Your task to perform on an android device: set default search engine in the chrome app Image 0: 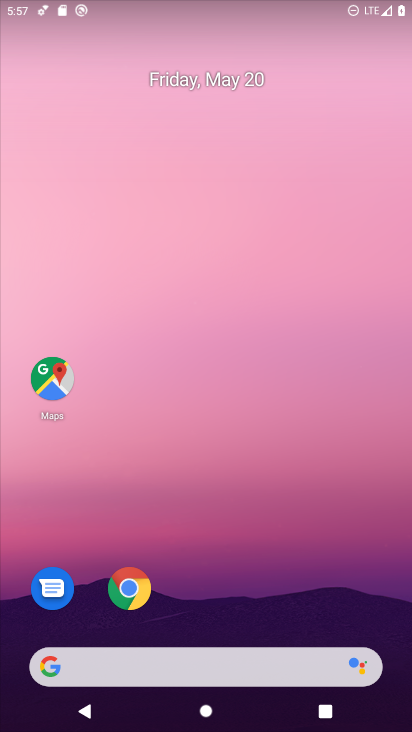
Step 0: click (126, 587)
Your task to perform on an android device: set default search engine in the chrome app Image 1: 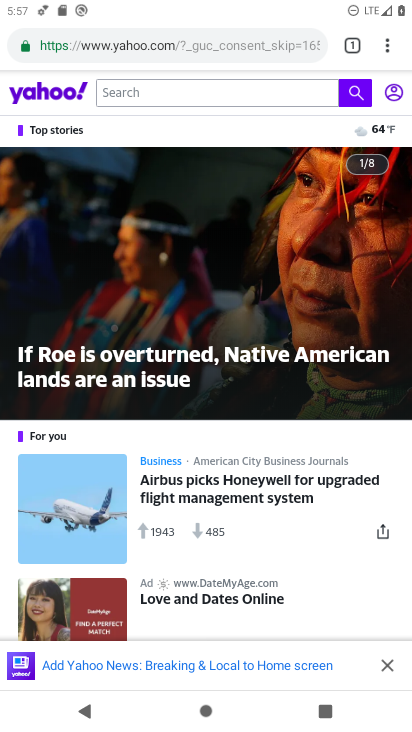
Step 1: click (387, 48)
Your task to perform on an android device: set default search engine in the chrome app Image 2: 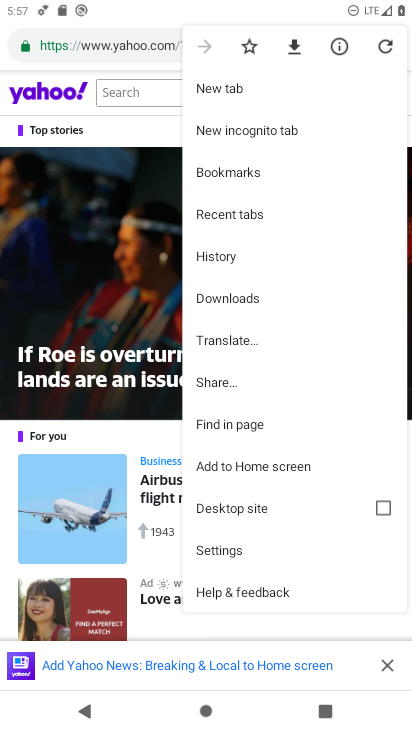
Step 2: click (216, 555)
Your task to perform on an android device: set default search engine in the chrome app Image 3: 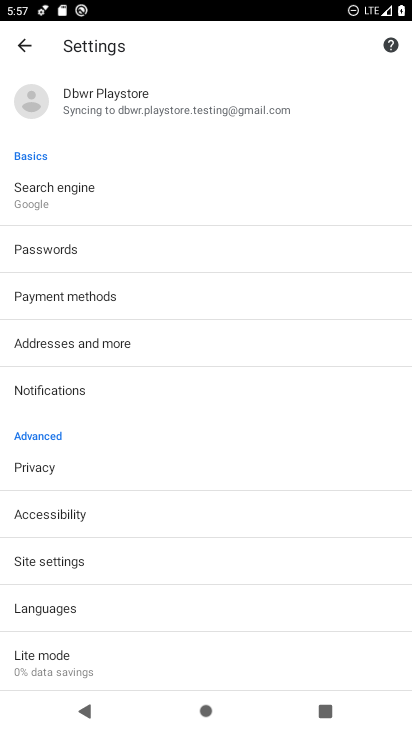
Step 3: click (64, 196)
Your task to perform on an android device: set default search engine in the chrome app Image 4: 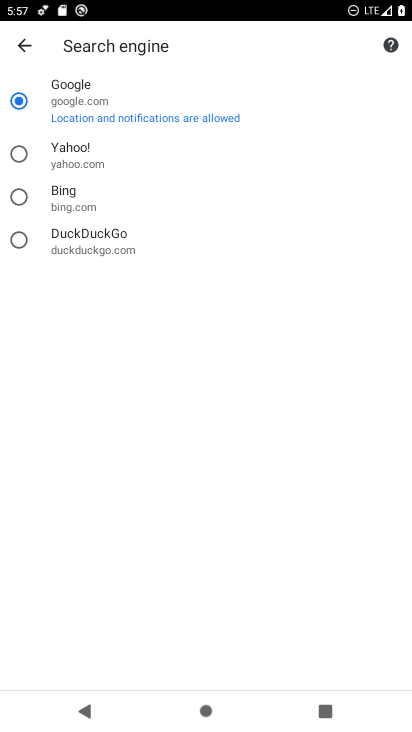
Step 4: click (66, 237)
Your task to perform on an android device: set default search engine in the chrome app Image 5: 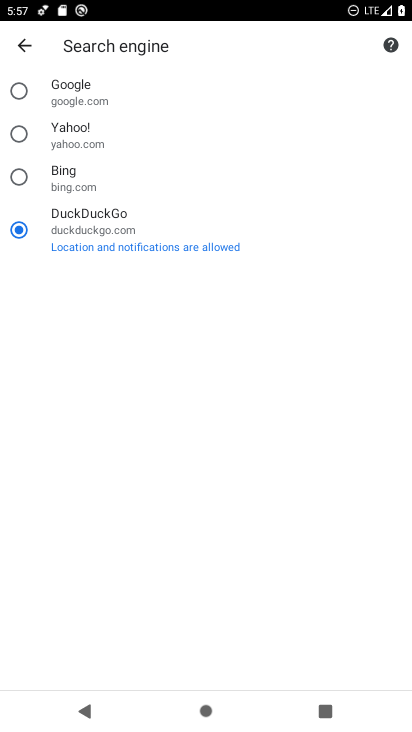
Step 5: task complete